Your task to perform on an android device: What's the weather going to be this weekend? Image 0: 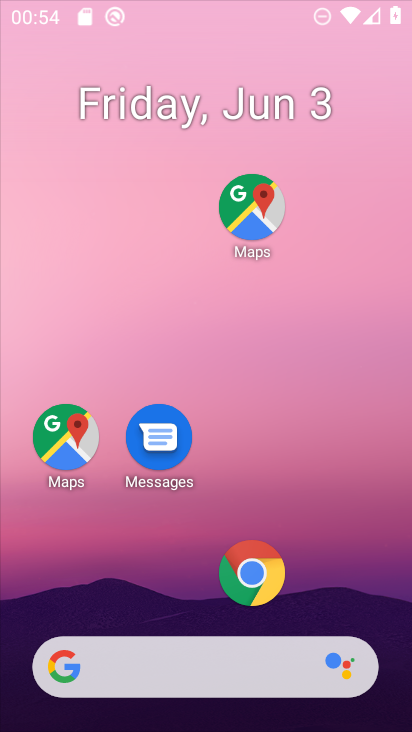
Step 0: click (404, 684)
Your task to perform on an android device: What's the weather going to be this weekend? Image 1: 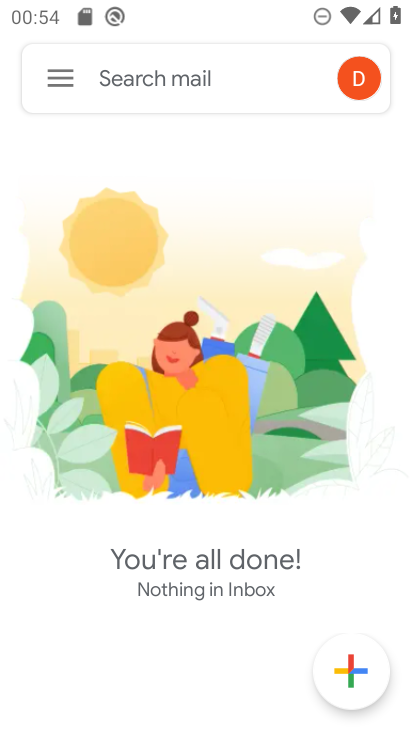
Step 1: press home button
Your task to perform on an android device: What's the weather going to be this weekend? Image 2: 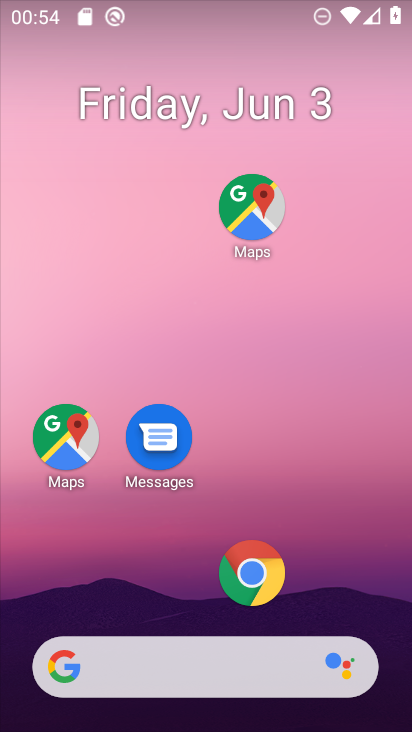
Step 2: click (236, 678)
Your task to perform on an android device: What's the weather going to be this weekend? Image 3: 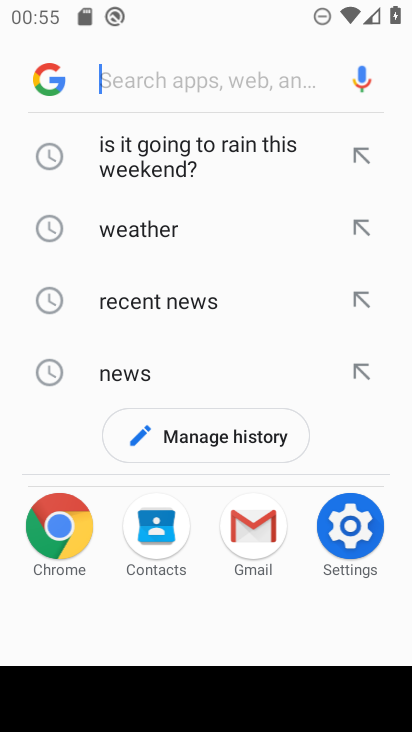
Step 3: click (170, 229)
Your task to perform on an android device: What's the weather going to be this weekend? Image 4: 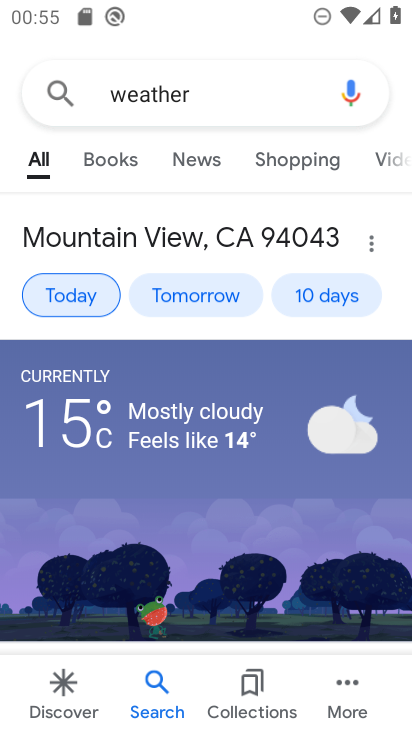
Step 4: click (314, 289)
Your task to perform on an android device: What's the weather going to be this weekend? Image 5: 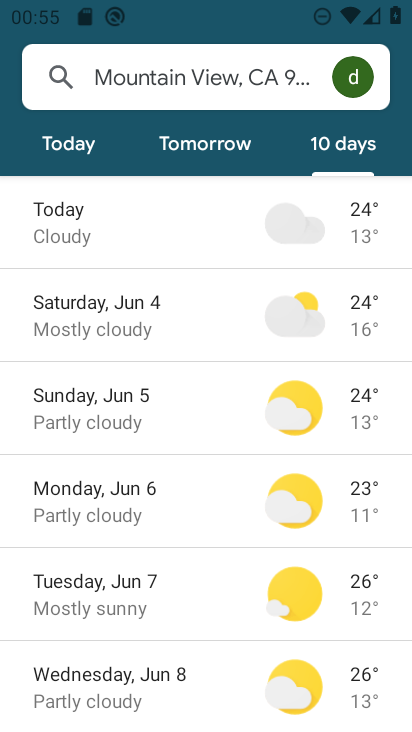
Step 5: task complete